Your task to perform on an android device: change your default location settings in chrome Image 0: 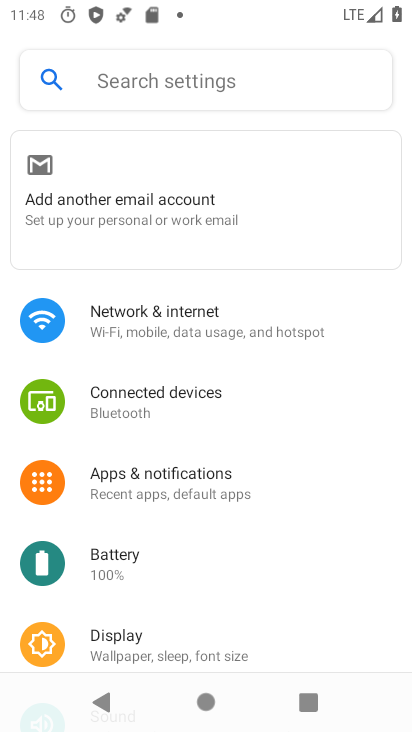
Step 0: press home button
Your task to perform on an android device: change your default location settings in chrome Image 1: 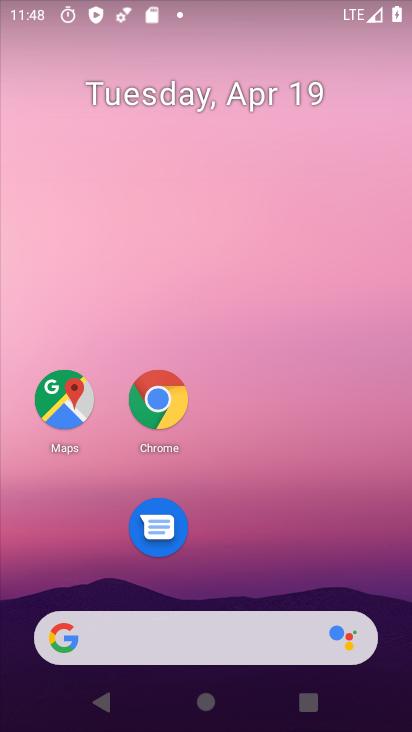
Step 1: drag from (253, 638) to (267, 52)
Your task to perform on an android device: change your default location settings in chrome Image 2: 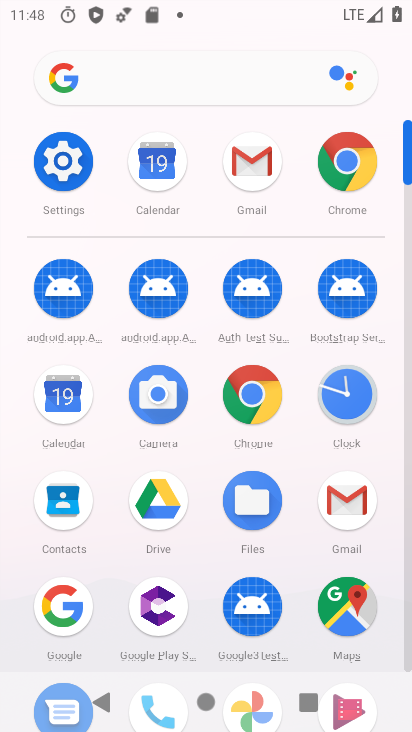
Step 2: click (345, 152)
Your task to perform on an android device: change your default location settings in chrome Image 3: 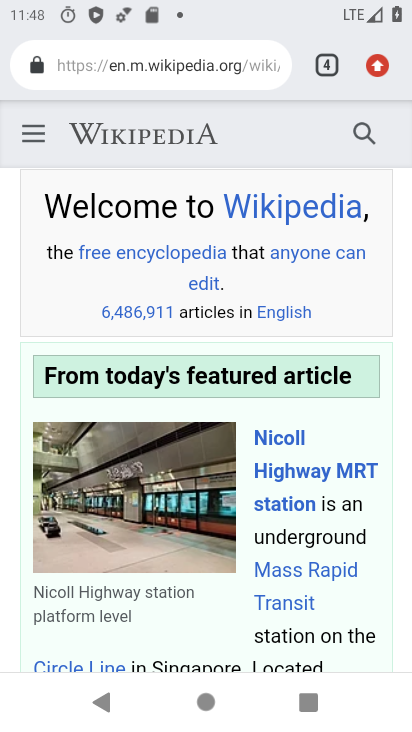
Step 3: click (380, 62)
Your task to perform on an android device: change your default location settings in chrome Image 4: 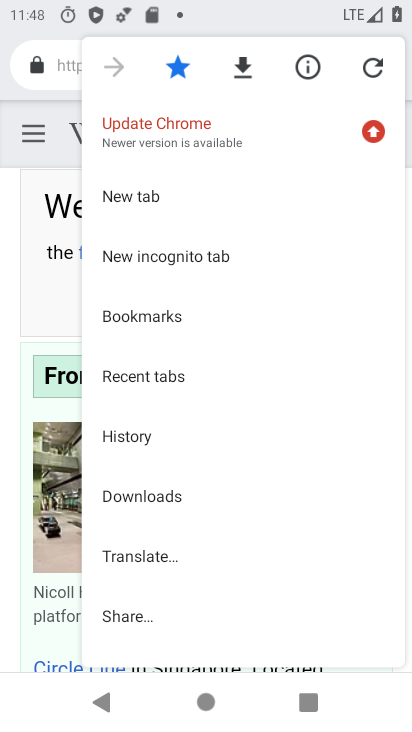
Step 4: drag from (196, 532) to (181, 222)
Your task to perform on an android device: change your default location settings in chrome Image 5: 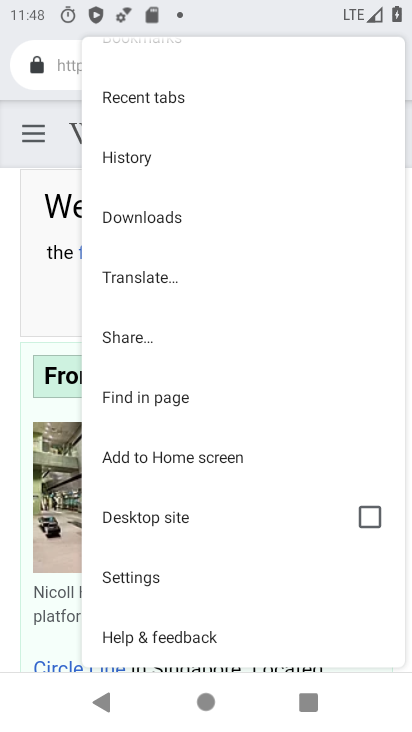
Step 5: click (129, 578)
Your task to perform on an android device: change your default location settings in chrome Image 6: 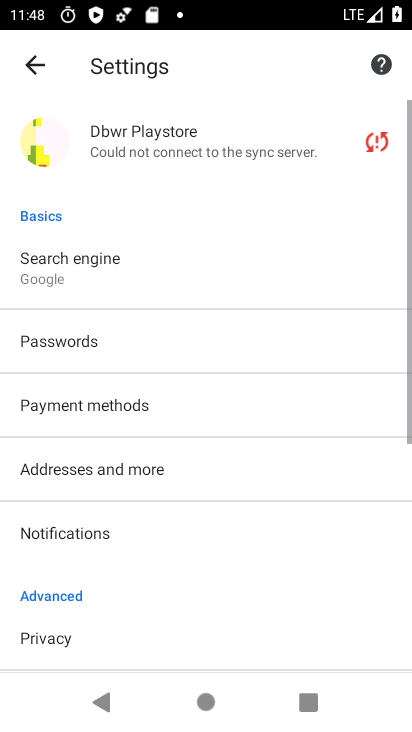
Step 6: drag from (129, 578) to (94, 158)
Your task to perform on an android device: change your default location settings in chrome Image 7: 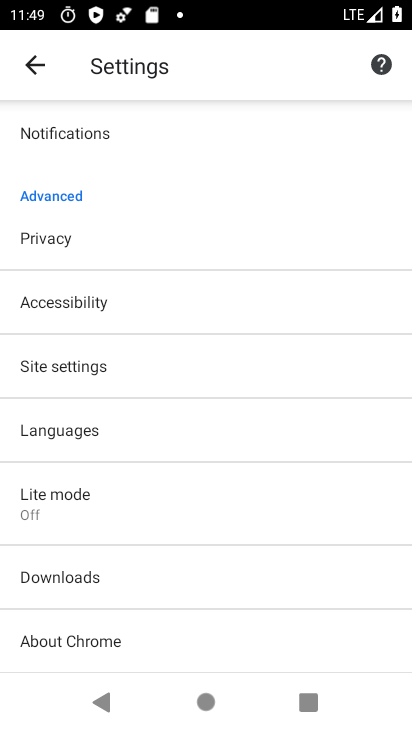
Step 7: drag from (156, 566) to (149, 384)
Your task to perform on an android device: change your default location settings in chrome Image 8: 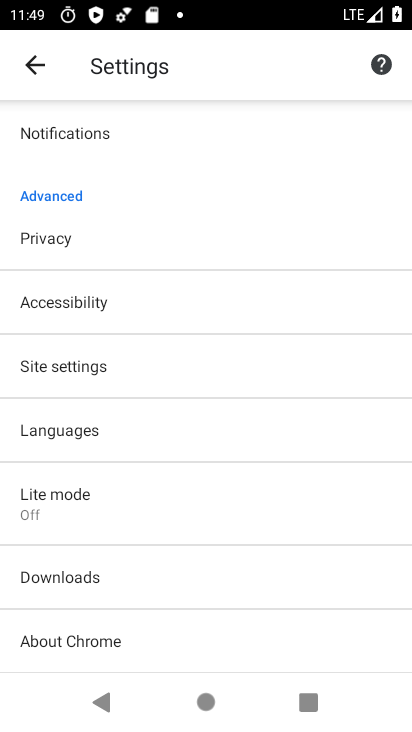
Step 8: click (82, 363)
Your task to perform on an android device: change your default location settings in chrome Image 9: 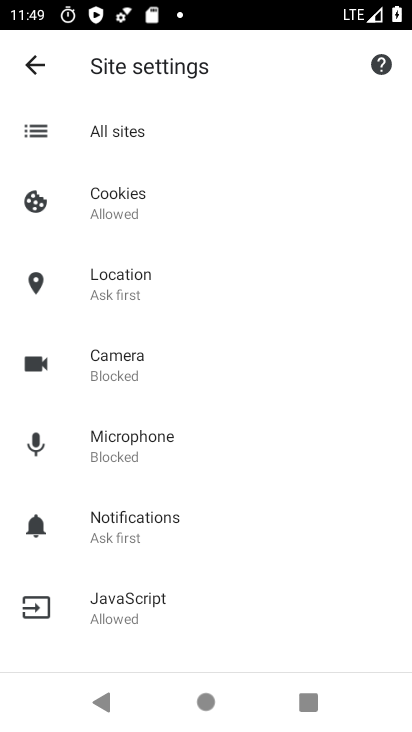
Step 9: click (123, 268)
Your task to perform on an android device: change your default location settings in chrome Image 10: 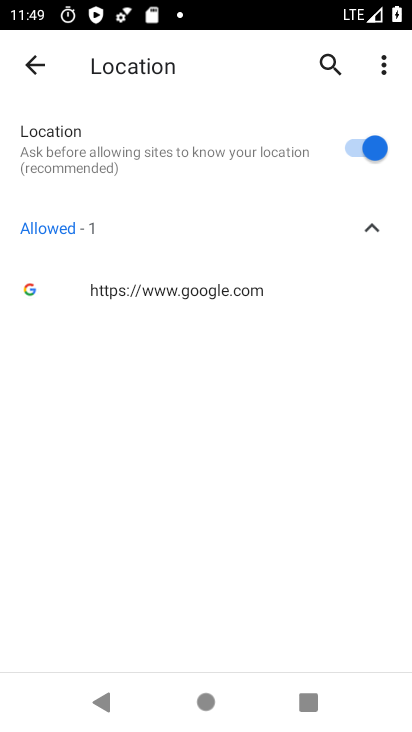
Step 10: click (216, 131)
Your task to perform on an android device: change your default location settings in chrome Image 11: 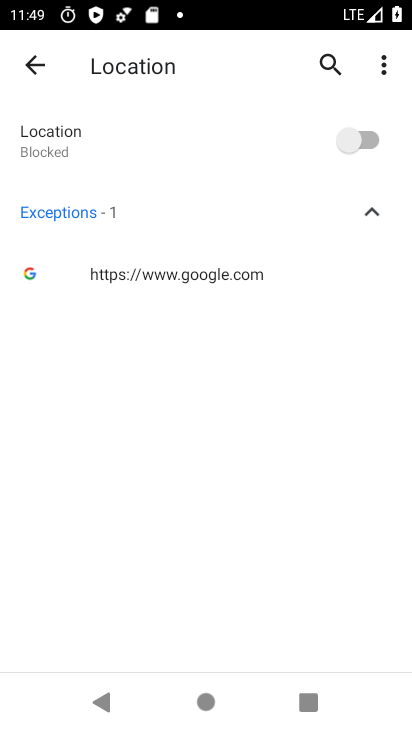
Step 11: click (217, 132)
Your task to perform on an android device: change your default location settings in chrome Image 12: 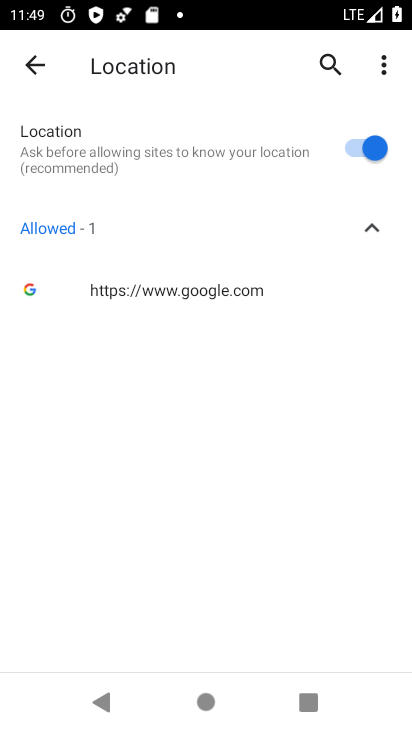
Step 12: task complete